Your task to perform on an android device: turn on airplane mode Image 0: 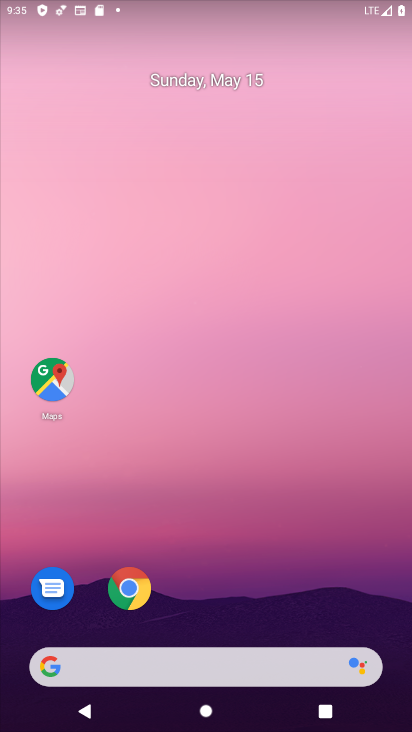
Step 0: drag from (235, 518) to (251, 144)
Your task to perform on an android device: turn on airplane mode Image 1: 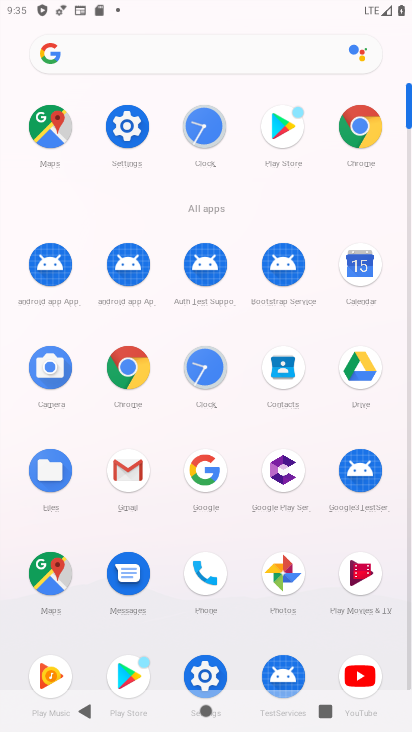
Step 1: click (120, 137)
Your task to perform on an android device: turn on airplane mode Image 2: 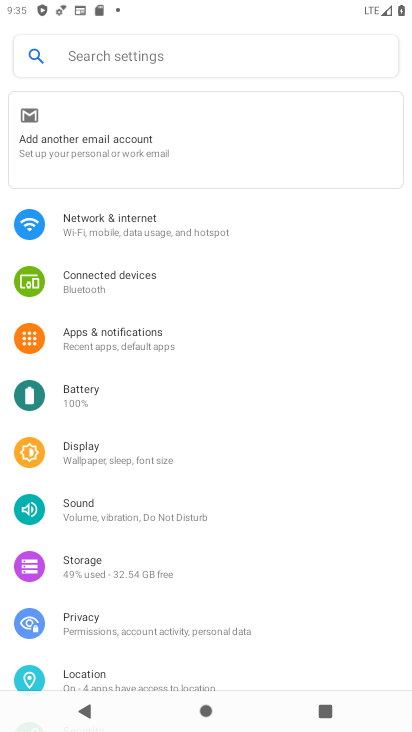
Step 2: click (144, 236)
Your task to perform on an android device: turn on airplane mode Image 3: 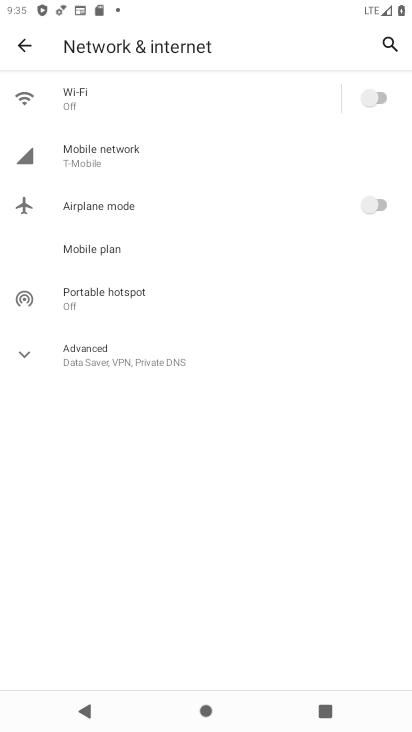
Step 3: click (365, 202)
Your task to perform on an android device: turn on airplane mode Image 4: 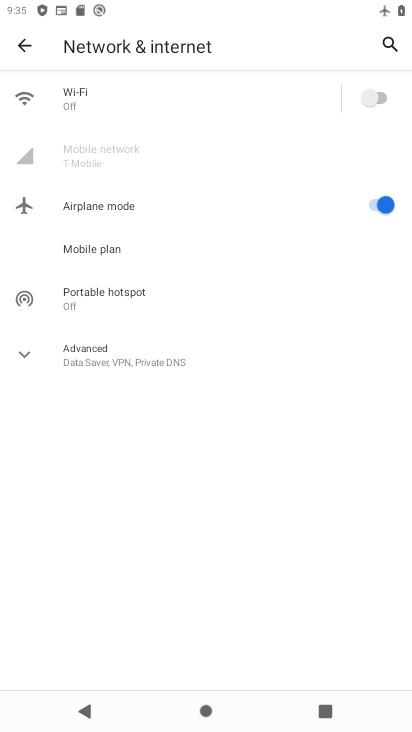
Step 4: task complete